Your task to perform on an android device: empty trash in google photos Image 0: 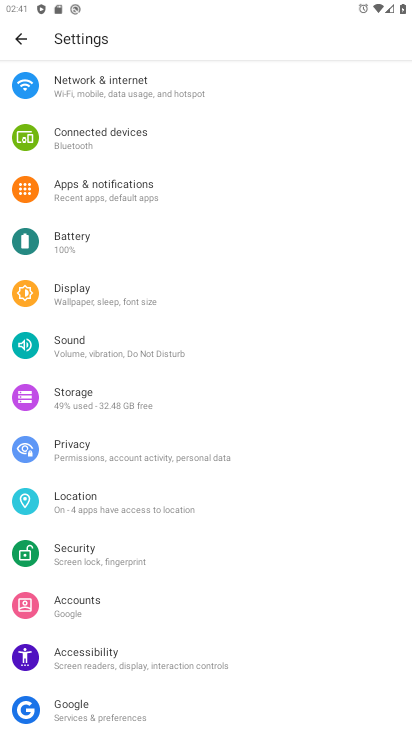
Step 0: press home button
Your task to perform on an android device: empty trash in google photos Image 1: 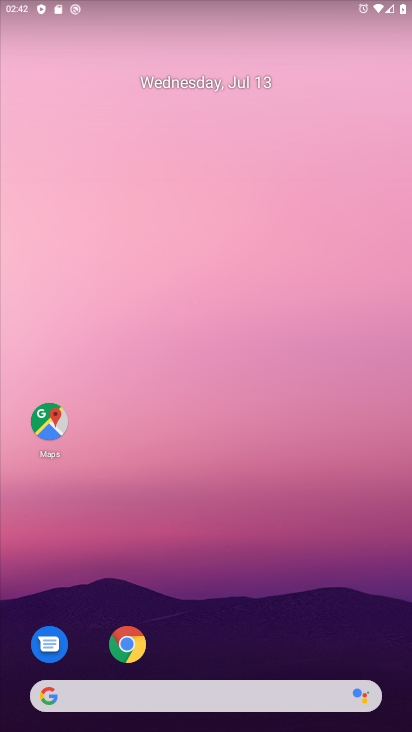
Step 1: drag from (128, 721) to (239, 28)
Your task to perform on an android device: empty trash in google photos Image 2: 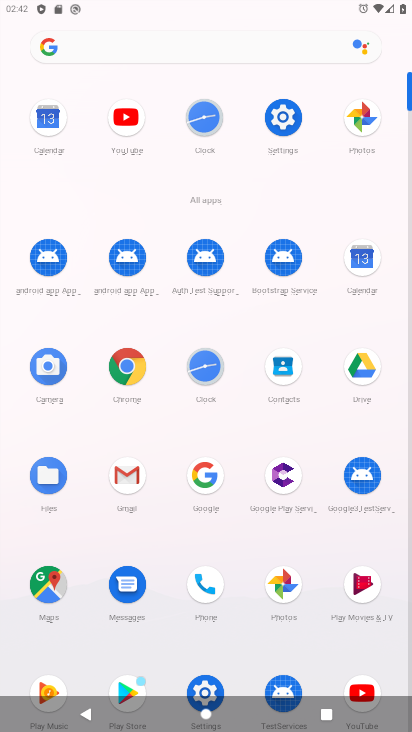
Step 2: click (370, 117)
Your task to perform on an android device: empty trash in google photos Image 3: 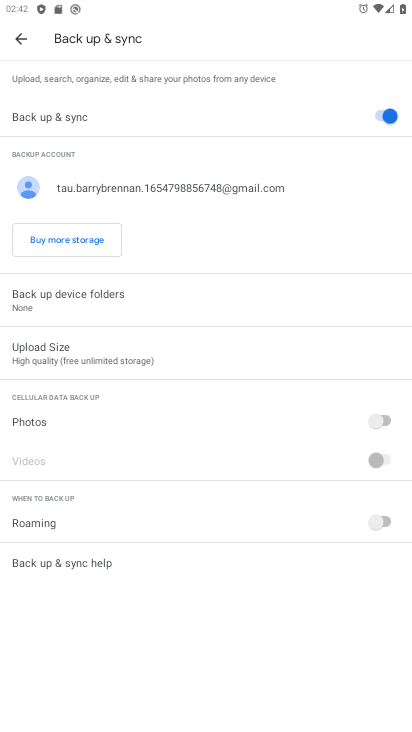
Step 3: click (24, 41)
Your task to perform on an android device: empty trash in google photos Image 4: 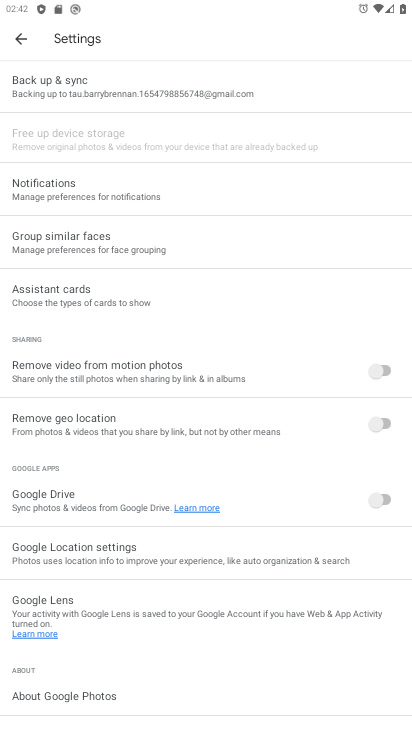
Step 4: click (23, 40)
Your task to perform on an android device: empty trash in google photos Image 5: 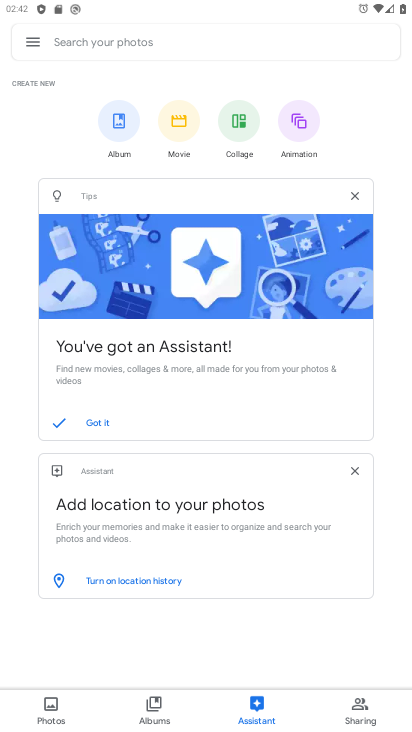
Step 5: click (34, 38)
Your task to perform on an android device: empty trash in google photos Image 6: 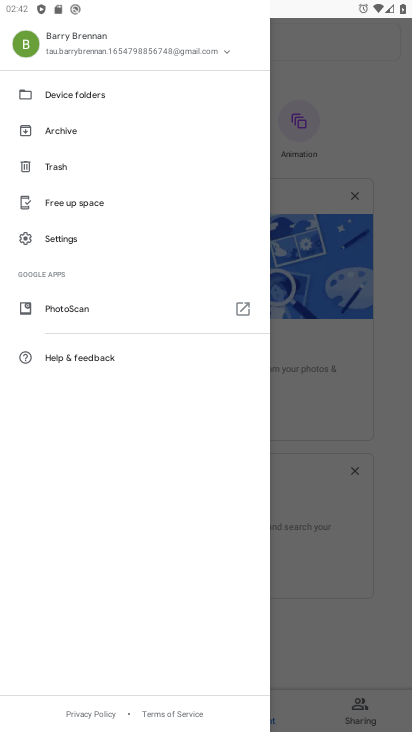
Step 6: click (74, 167)
Your task to perform on an android device: empty trash in google photos Image 7: 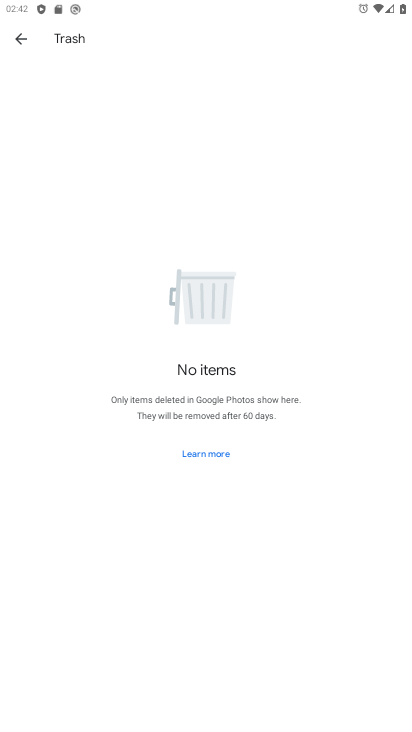
Step 7: task complete